Your task to perform on an android device: Go to Google Image 0: 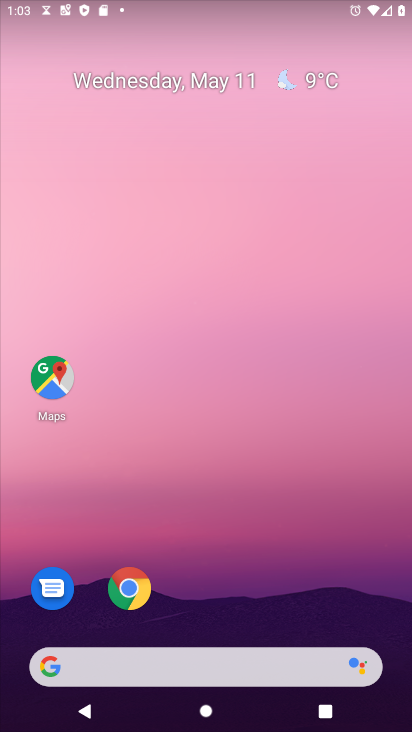
Step 0: drag from (242, 604) to (213, 121)
Your task to perform on an android device: Go to Google Image 1: 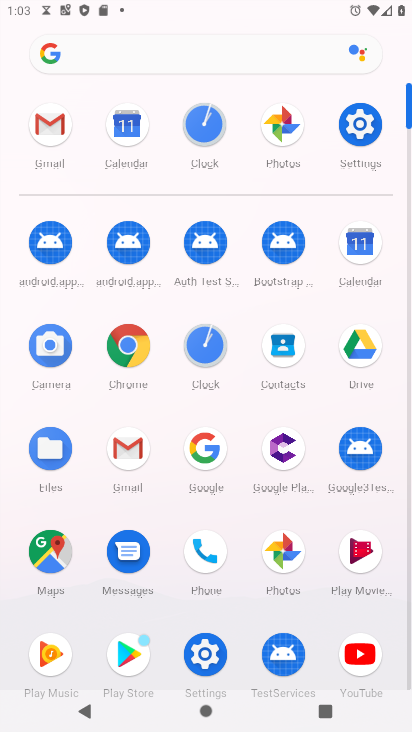
Step 1: click (210, 458)
Your task to perform on an android device: Go to Google Image 2: 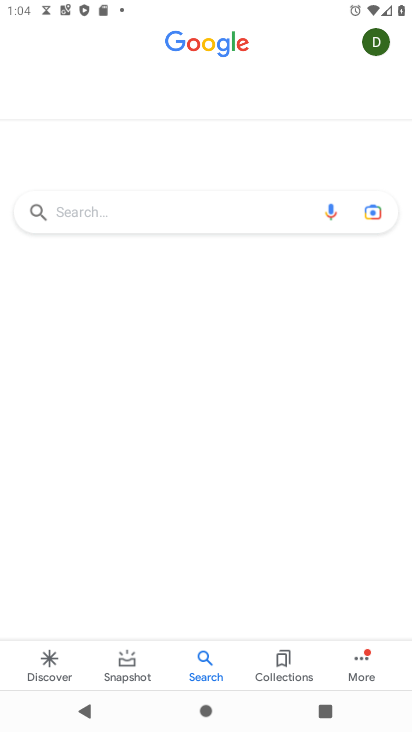
Step 2: task complete